Your task to perform on an android device: Open Android settings Image 0: 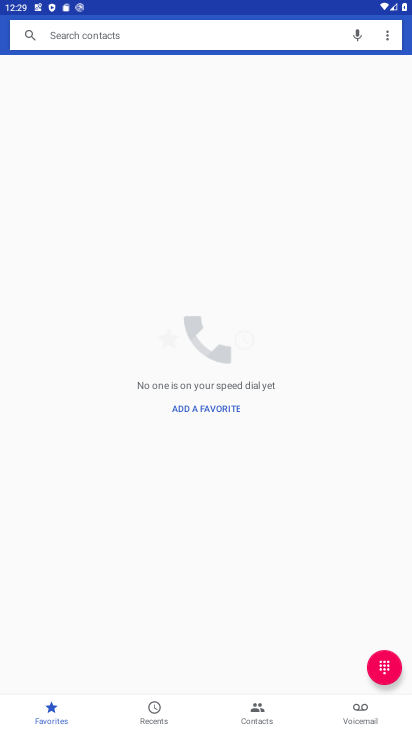
Step 0: press home button
Your task to perform on an android device: Open Android settings Image 1: 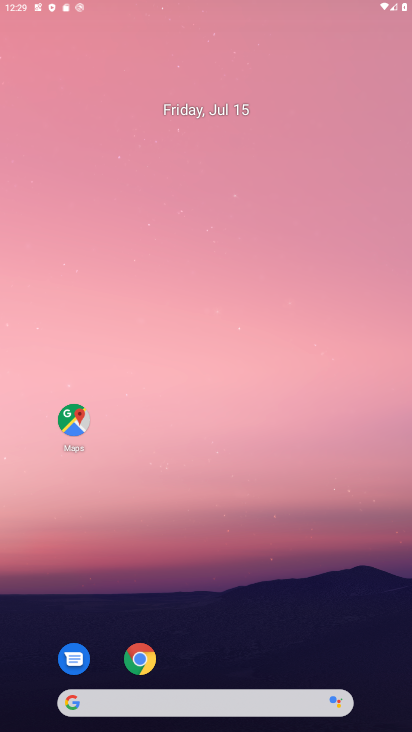
Step 1: drag from (216, 619) to (232, 139)
Your task to perform on an android device: Open Android settings Image 2: 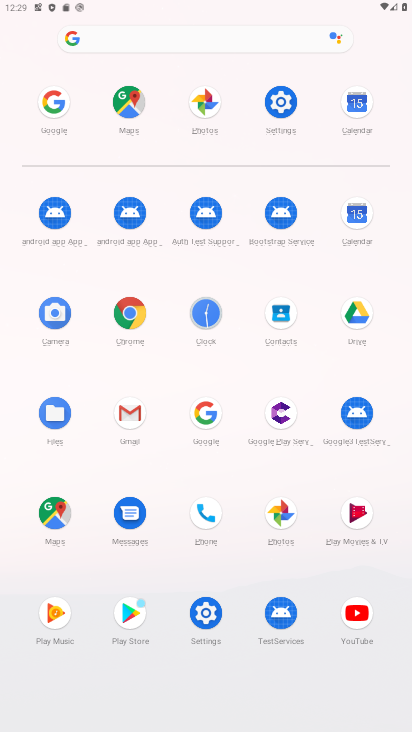
Step 2: click (281, 109)
Your task to perform on an android device: Open Android settings Image 3: 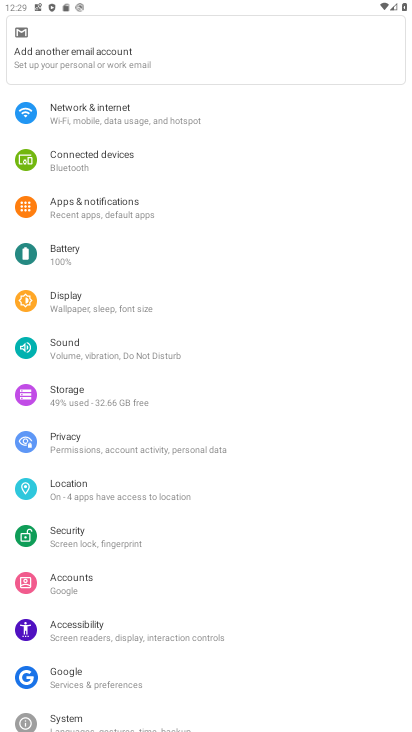
Step 3: task complete